Your task to perform on an android device: Go to calendar. Show me events next week Image 0: 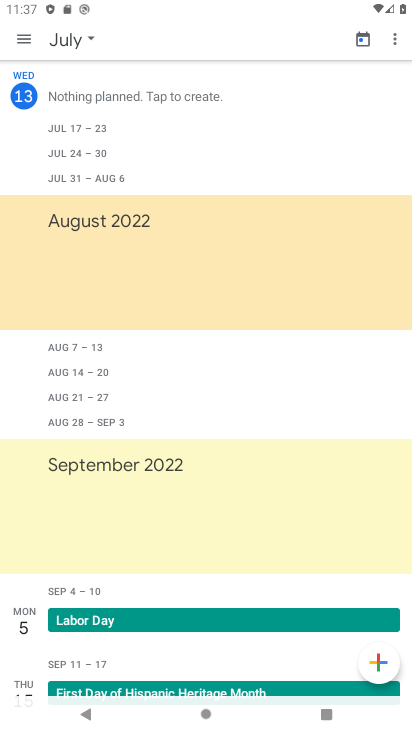
Step 0: press home button
Your task to perform on an android device: Go to calendar. Show me events next week Image 1: 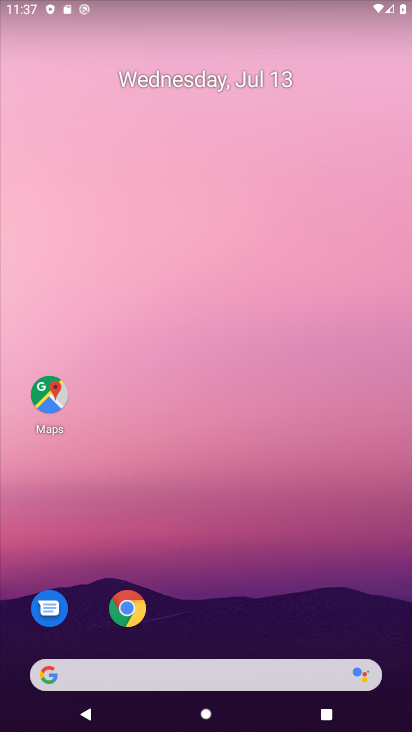
Step 1: drag from (136, 710) to (246, 45)
Your task to perform on an android device: Go to calendar. Show me events next week Image 2: 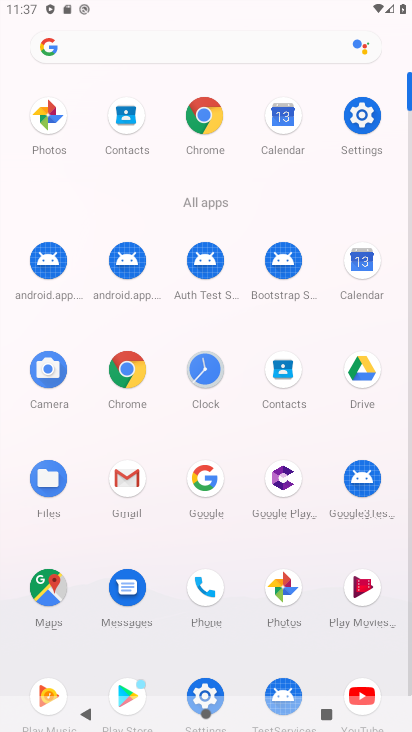
Step 2: click (356, 256)
Your task to perform on an android device: Go to calendar. Show me events next week Image 3: 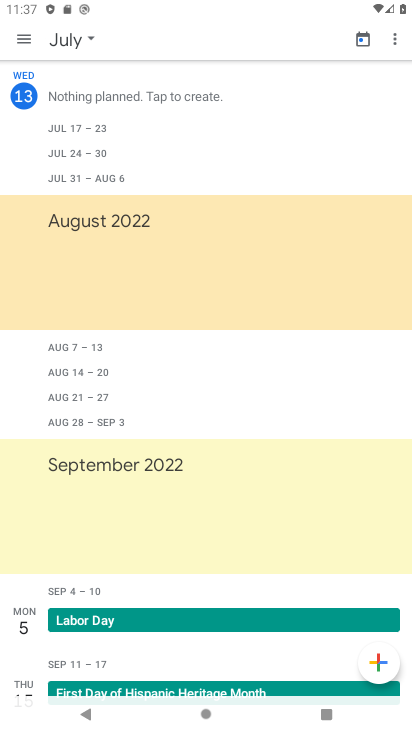
Step 3: click (68, 42)
Your task to perform on an android device: Go to calendar. Show me events next week Image 4: 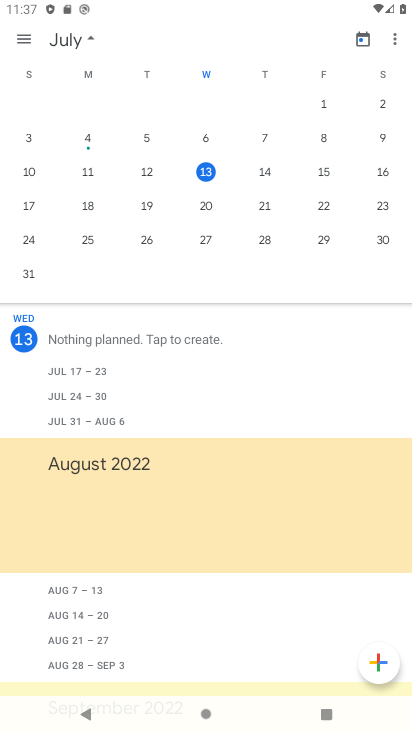
Step 4: click (20, 207)
Your task to perform on an android device: Go to calendar. Show me events next week Image 5: 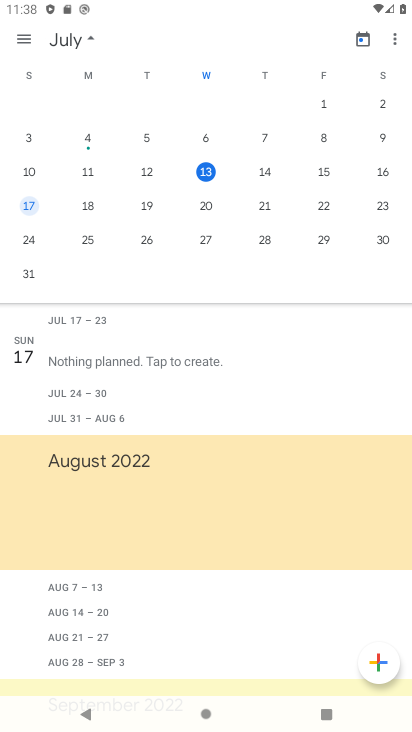
Step 5: task complete